Your task to perform on an android device: uninstall "Nova Launcher" Image 0: 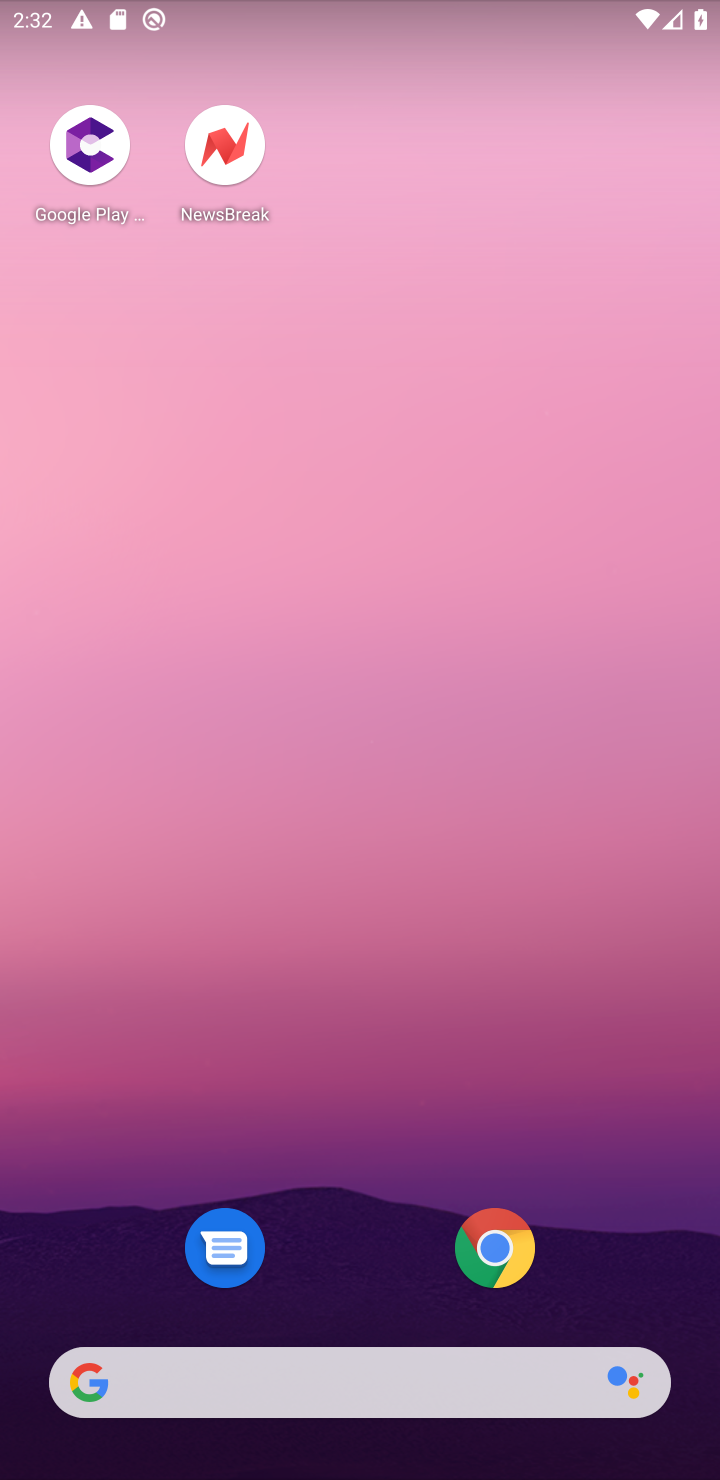
Step 0: drag from (345, 1318) to (225, 307)
Your task to perform on an android device: uninstall "Nova Launcher" Image 1: 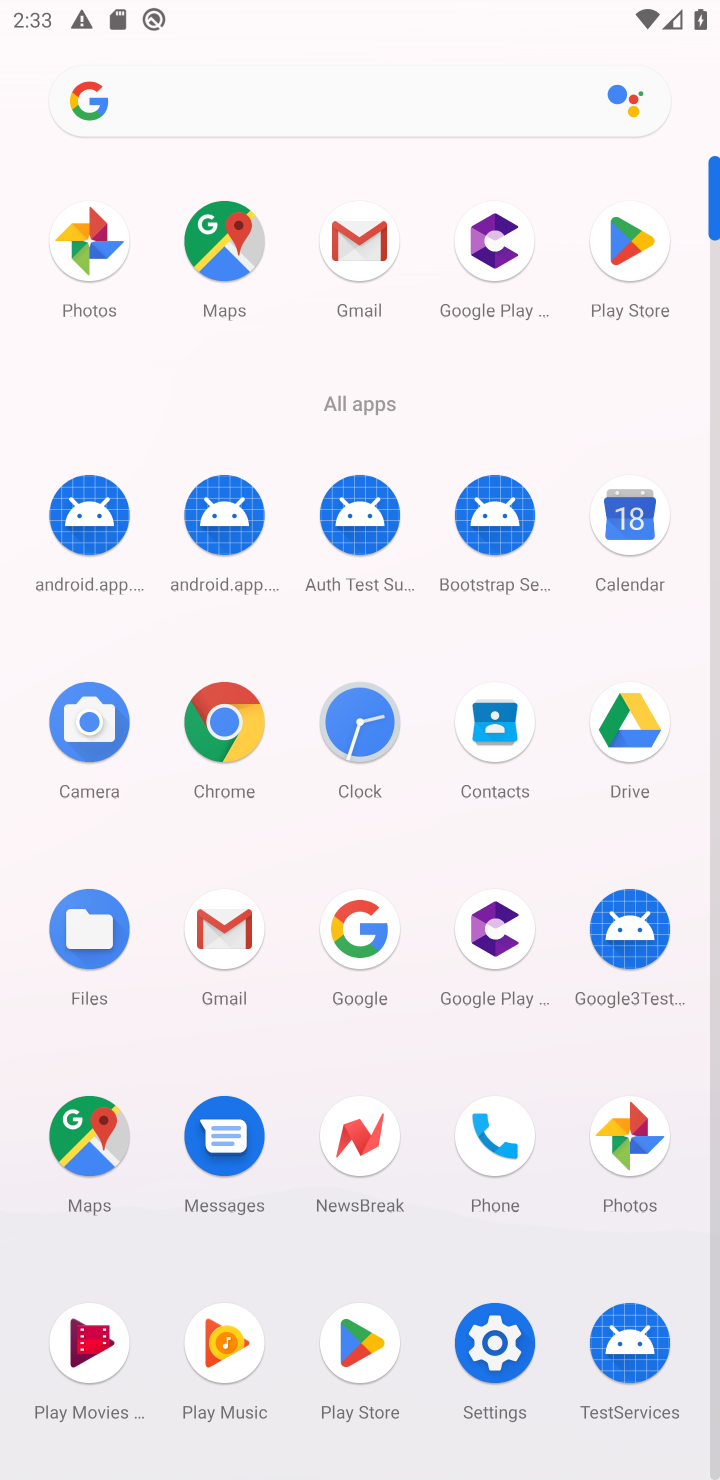
Step 1: click (356, 1340)
Your task to perform on an android device: uninstall "Nova Launcher" Image 2: 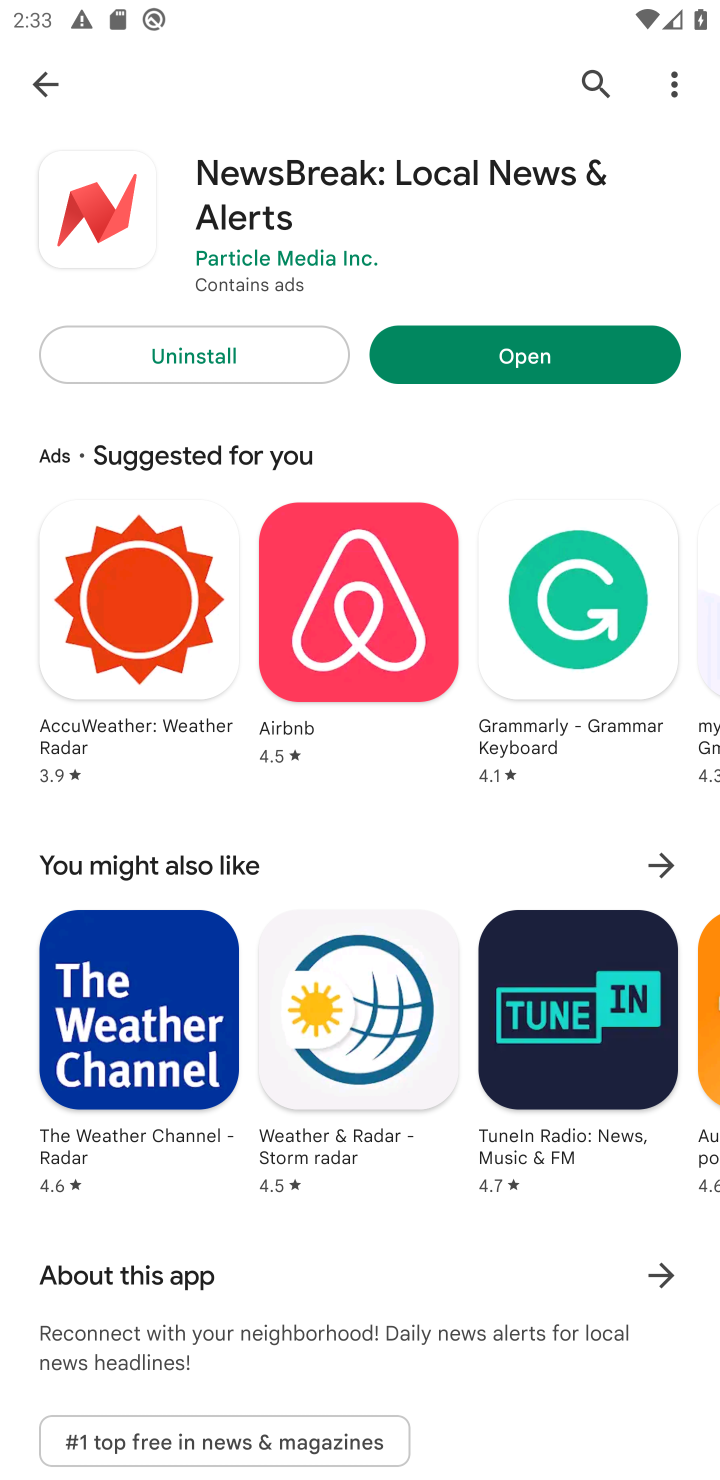
Step 2: click (196, 344)
Your task to perform on an android device: uninstall "Nova Launcher" Image 3: 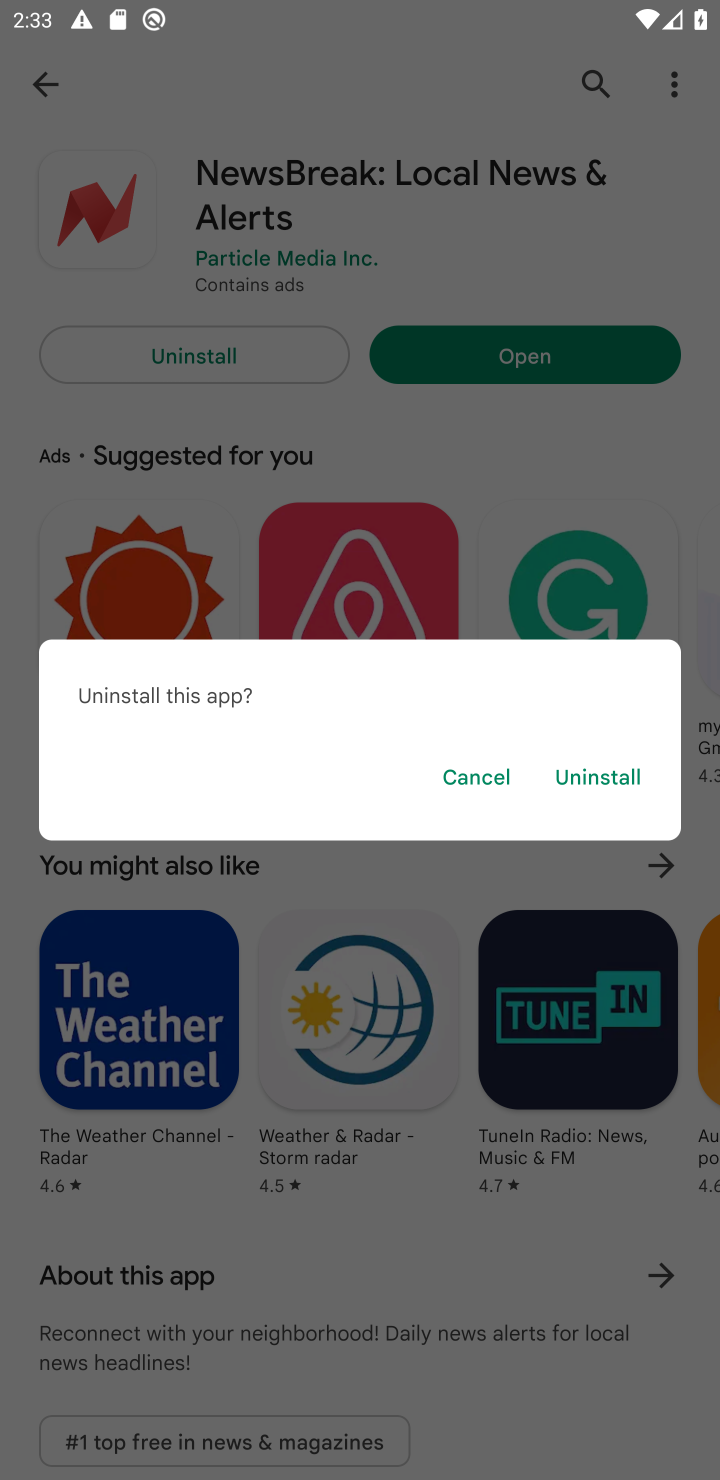
Step 3: click (461, 774)
Your task to perform on an android device: uninstall "Nova Launcher" Image 4: 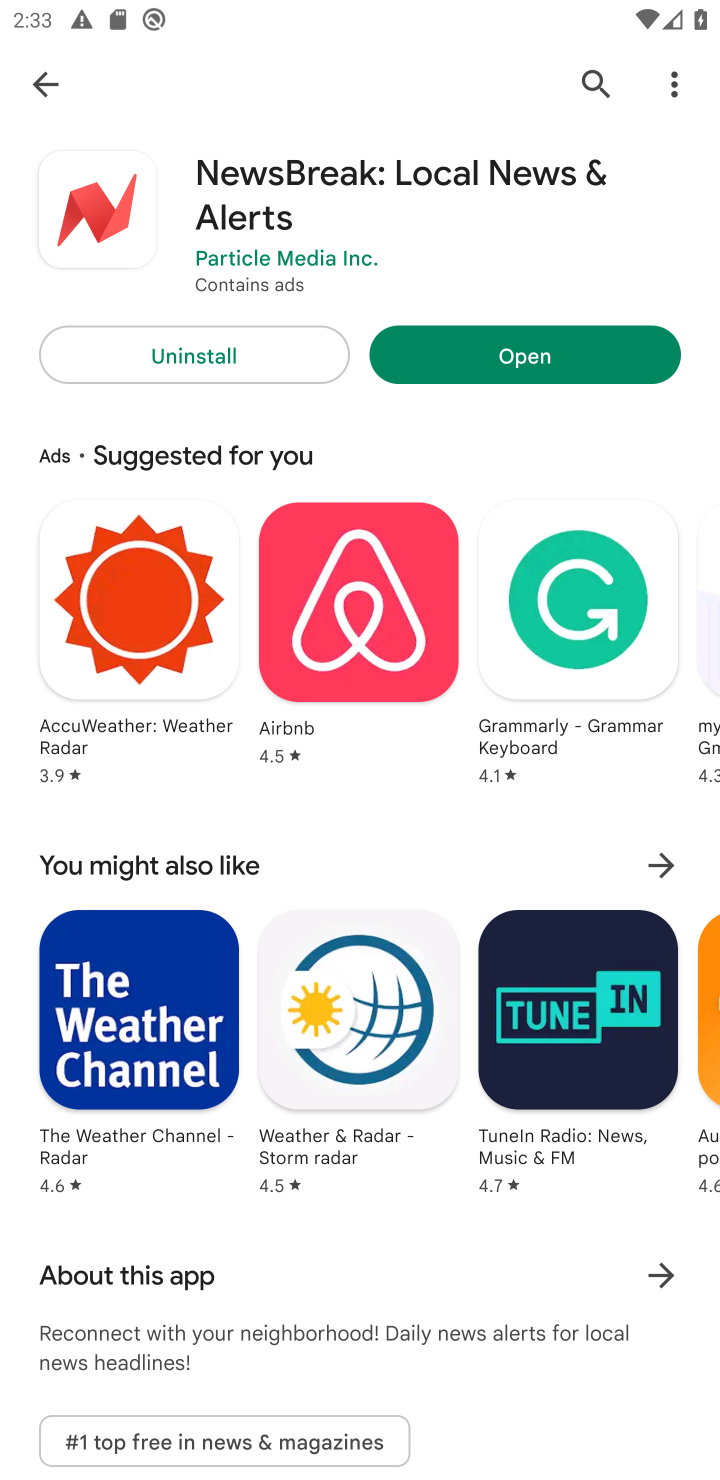
Step 4: click (592, 75)
Your task to perform on an android device: uninstall "Nova Launcher" Image 5: 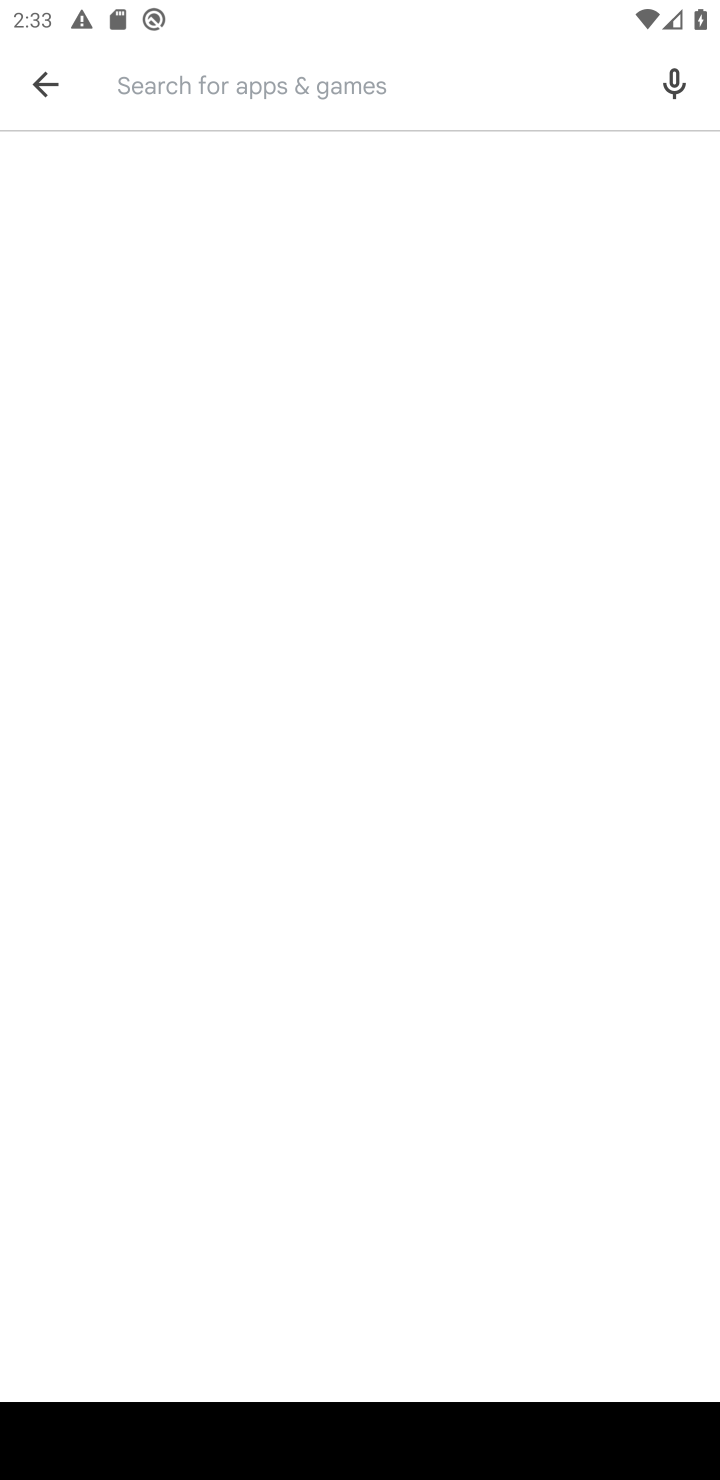
Step 5: type ""
Your task to perform on an android device: uninstall "Nova Launcher" Image 6: 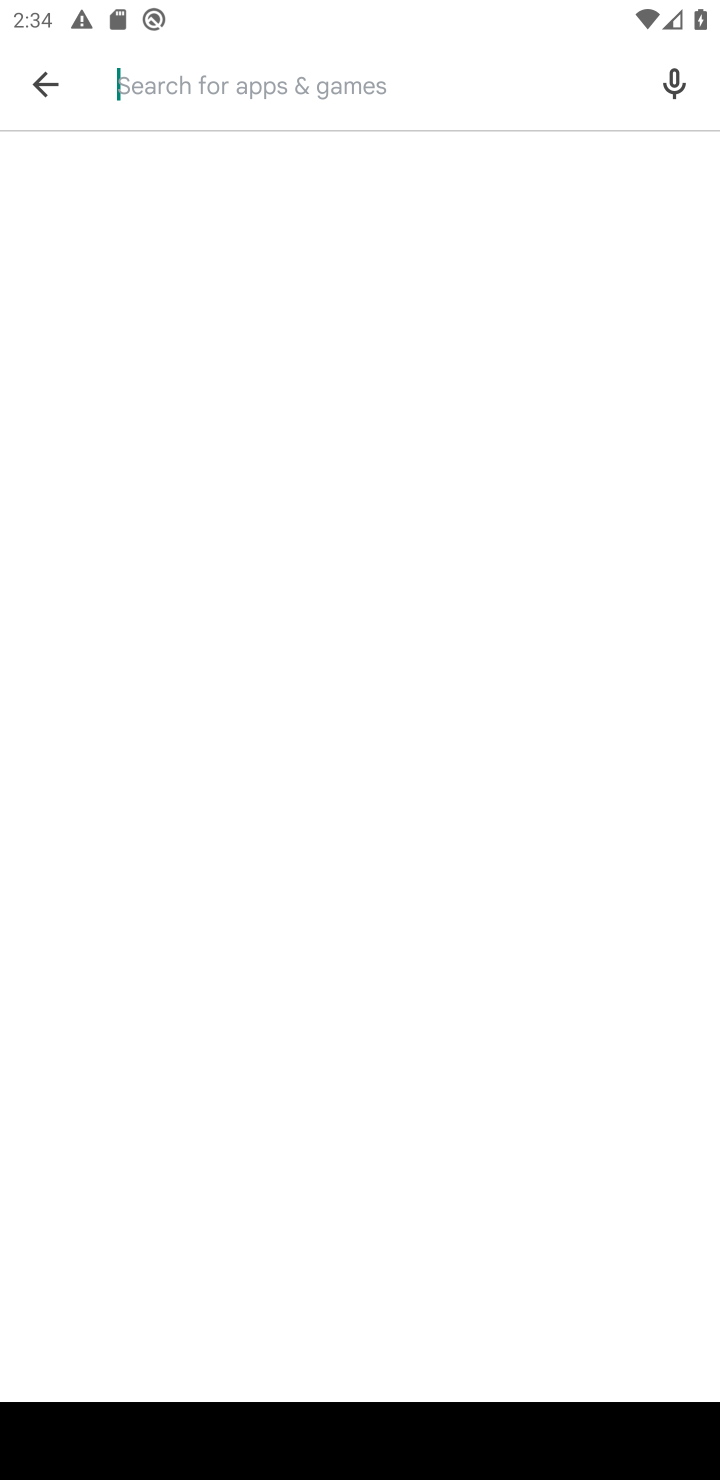
Step 6: type "Nova Launcher"
Your task to perform on an android device: uninstall "Nova Launcher" Image 7: 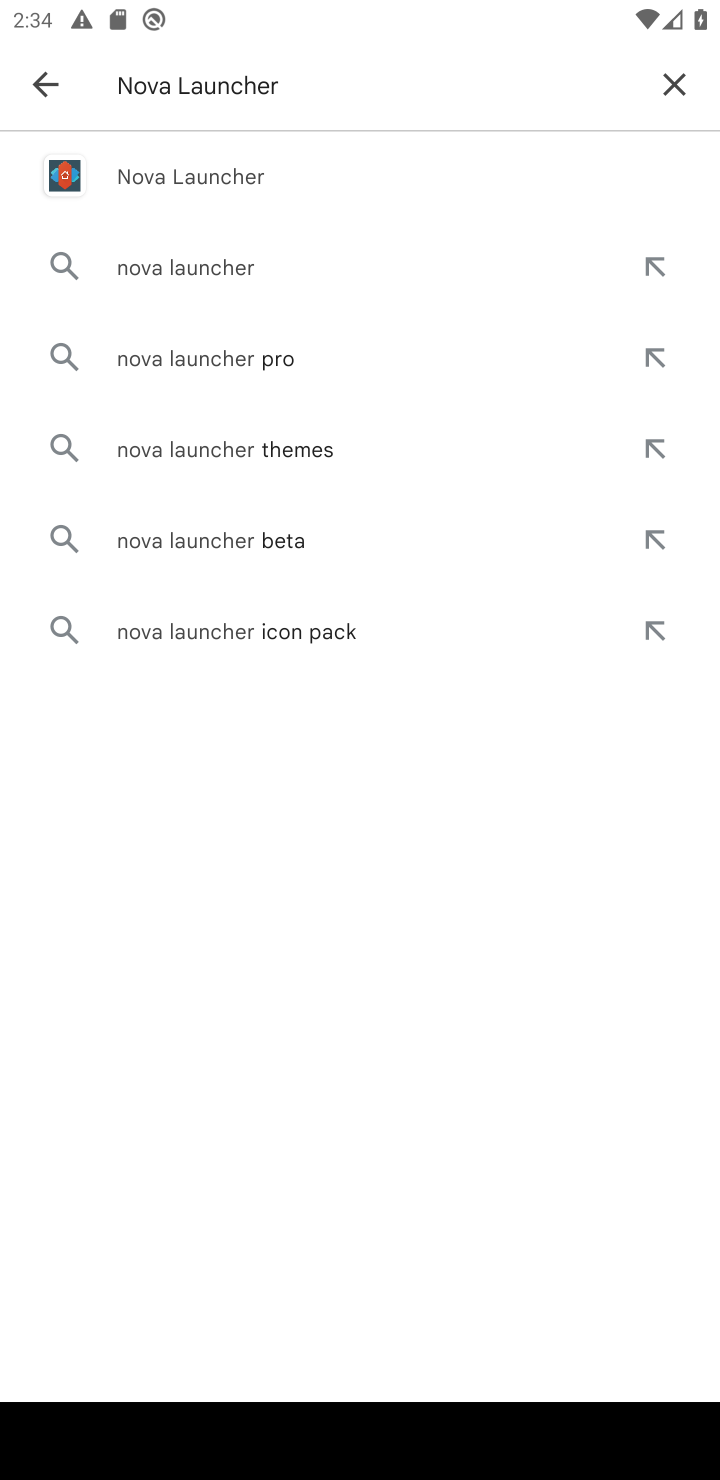
Step 7: click (136, 170)
Your task to perform on an android device: uninstall "Nova Launcher" Image 8: 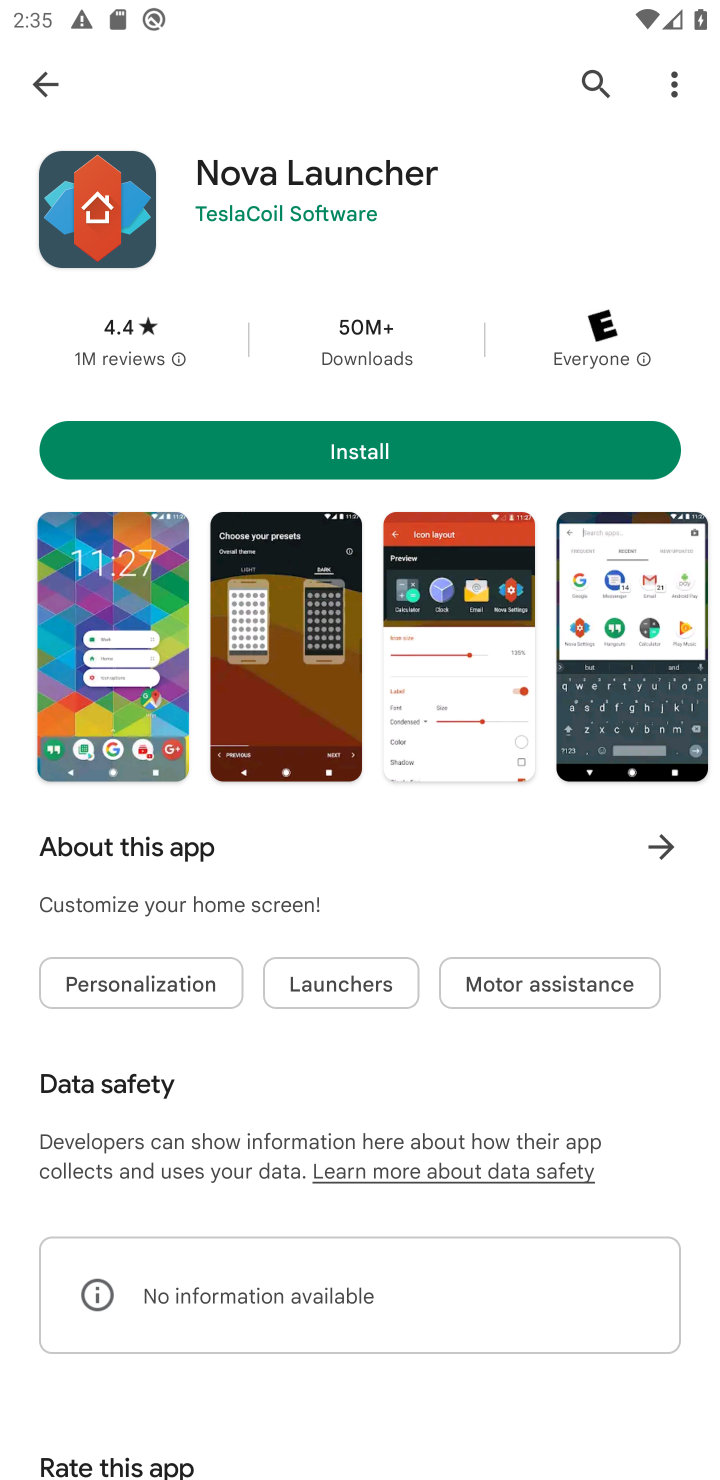
Step 8: task complete